Your task to perform on an android device: turn off sleep mode Image 0: 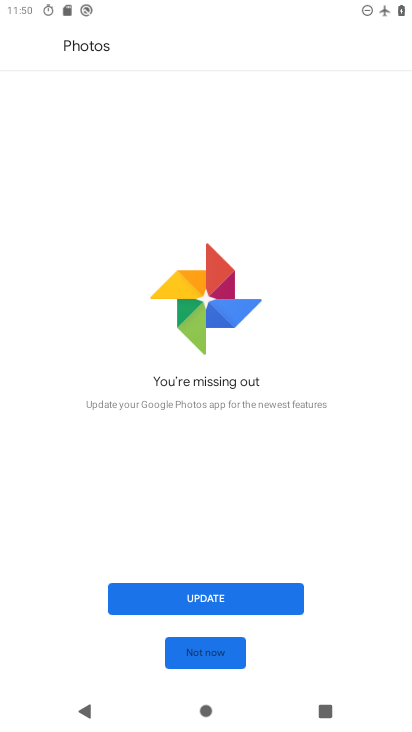
Step 0: press home button
Your task to perform on an android device: turn off sleep mode Image 1: 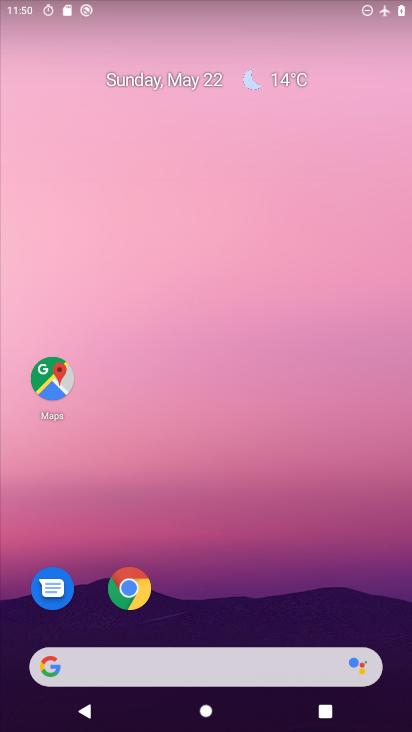
Step 1: drag from (209, 610) to (216, 171)
Your task to perform on an android device: turn off sleep mode Image 2: 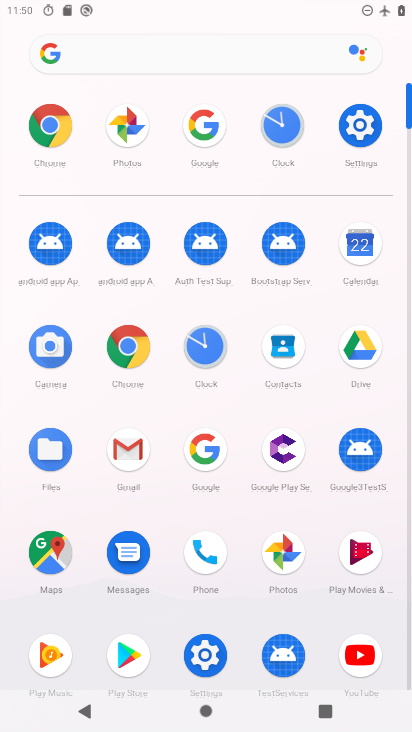
Step 2: click (338, 126)
Your task to perform on an android device: turn off sleep mode Image 3: 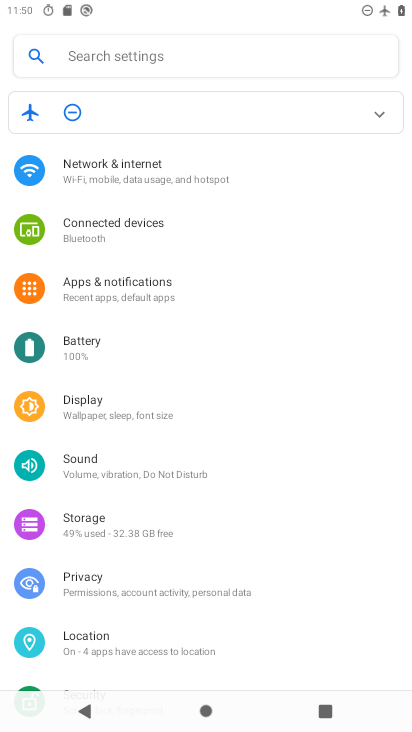
Step 3: click (136, 408)
Your task to perform on an android device: turn off sleep mode Image 4: 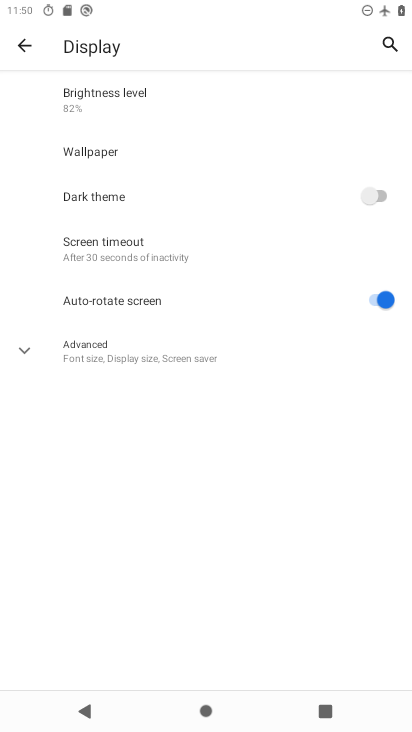
Step 4: click (142, 243)
Your task to perform on an android device: turn off sleep mode Image 5: 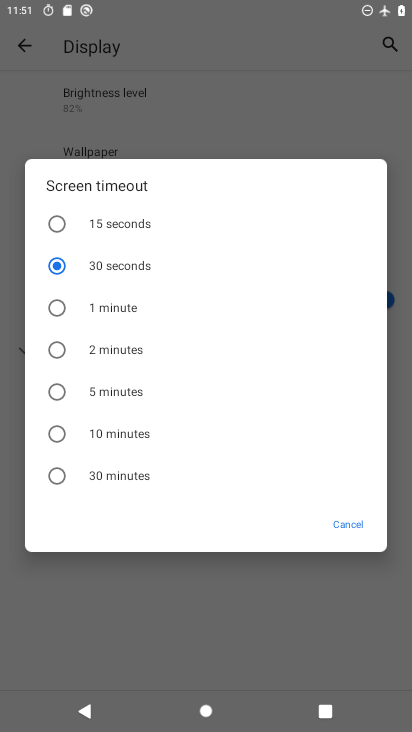
Step 5: click (86, 395)
Your task to perform on an android device: turn off sleep mode Image 6: 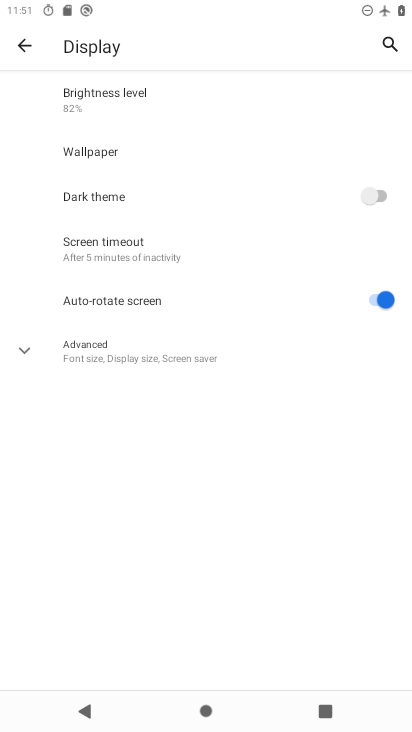
Step 6: click (177, 243)
Your task to perform on an android device: turn off sleep mode Image 7: 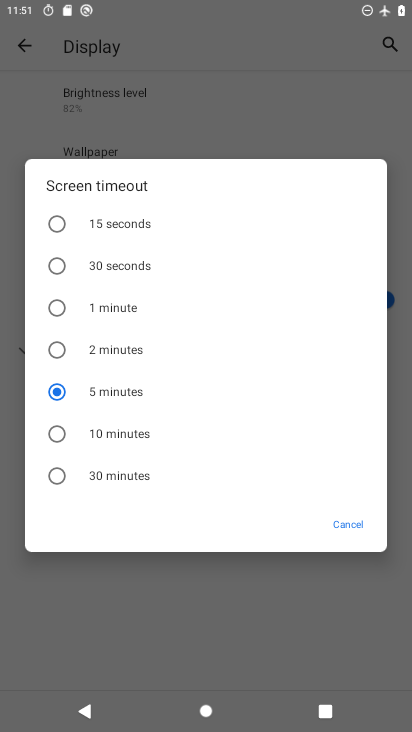
Step 7: click (170, 259)
Your task to perform on an android device: turn off sleep mode Image 8: 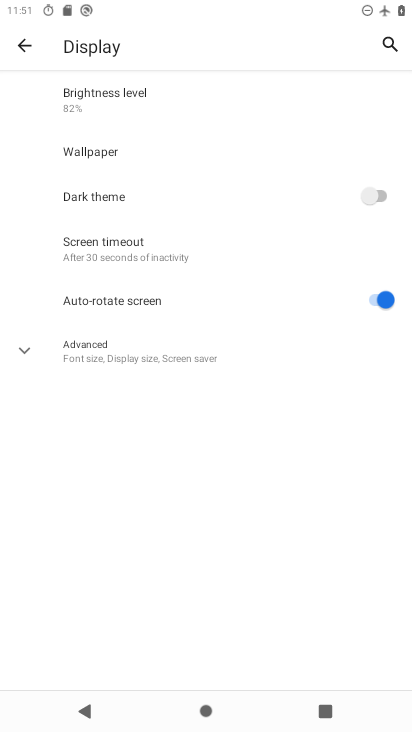
Step 8: task complete